Your task to perform on an android device: What's the weather going to be tomorrow? Image 0: 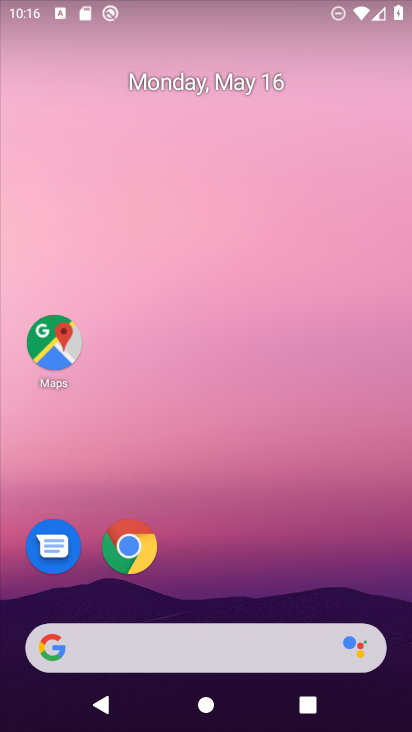
Step 0: click (186, 659)
Your task to perform on an android device: What's the weather going to be tomorrow? Image 1: 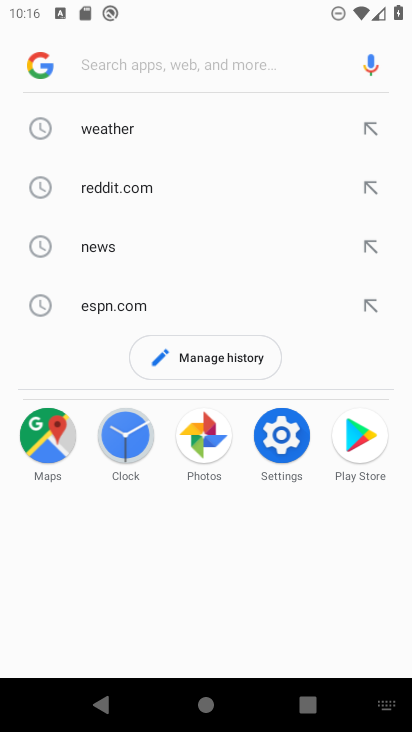
Step 1: click (193, 137)
Your task to perform on an android device: What's the weather going to be tomorrow? Image 2: 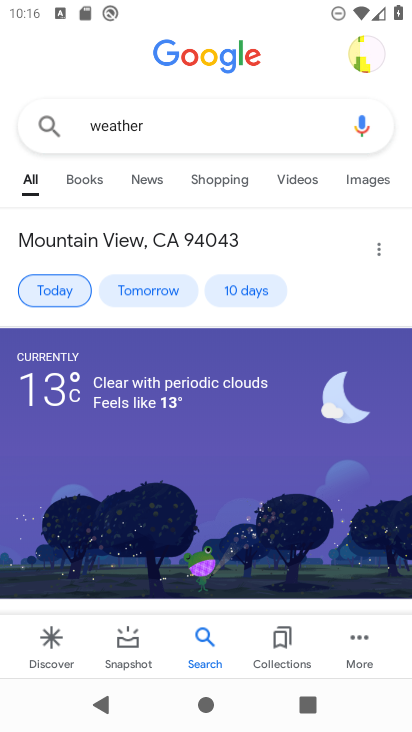
Step 2: click (164, 298)
Your task to perform on an android device: What's the weather going to be tomorrow? Image 3: 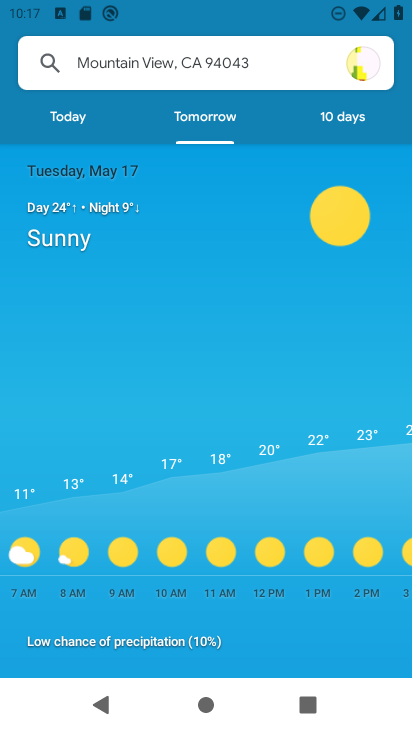
Step 3: task complete